Your task to perform on an android device: Search for a 3d printer on aliexpress Image 0: 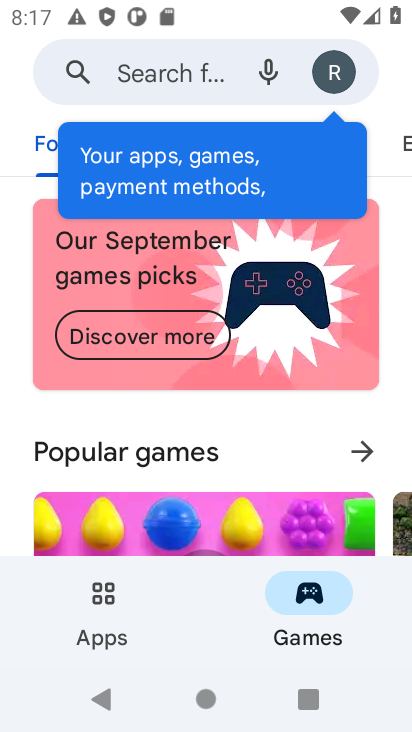
Step 0: press home button
Your task to perform on an android device: Search for a 3d printer on aliexpress Image 1: 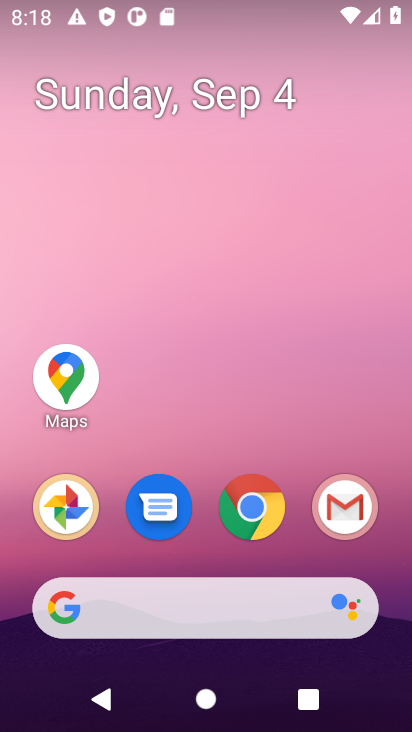
Step 1: click (256, 522)
Your task to perform on an android device: Search for a 3d printer on aliexpress Image 2: 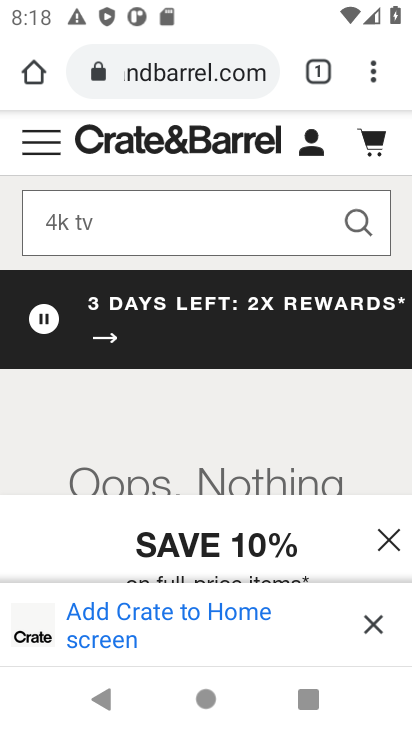
Step 2: click (162, 74)
Your task to perform on an android device: Search for a 3d printer on aliexpress Image 3: 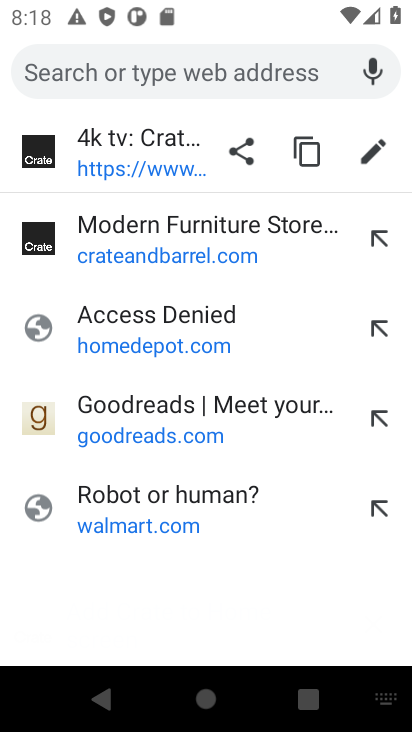
Step 3: type "aliexpress"
Your task to perform on an android device: Search for a 3d printer on aliexpress Image 4: 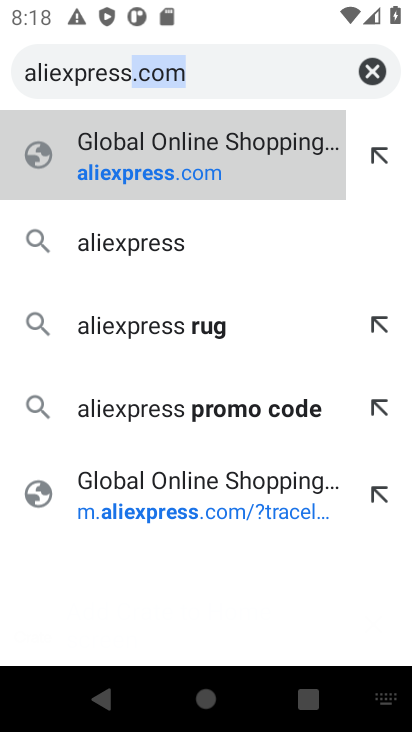
Step 4: click (282, 157)
Your task to perform on an android device: Search for a 3d printer on aliexpress Image 5: 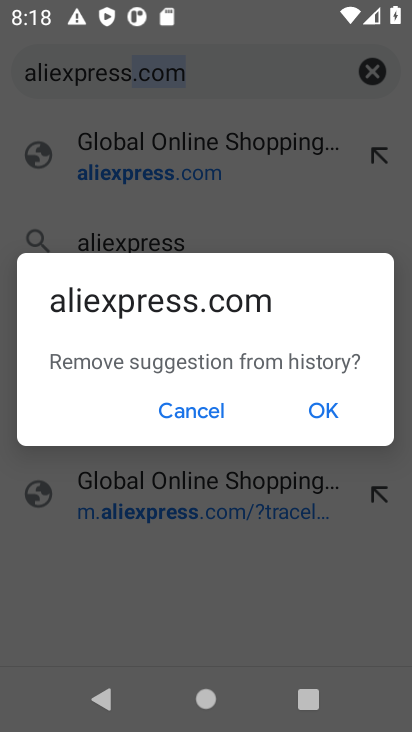
Step 5: click (196, 411)
Your task to perform on an android device: Search for a 3d printer on aliexpress Image 6: 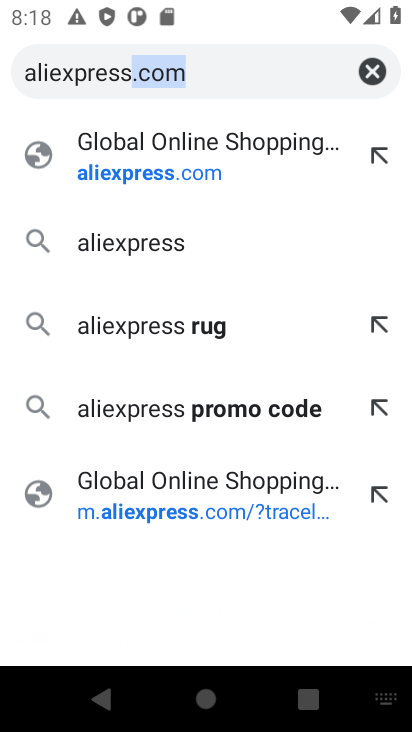
Step 6: click (168, 171)
Your task to perform on an android device: Search for a 3d printer on aliexpress Image 7: 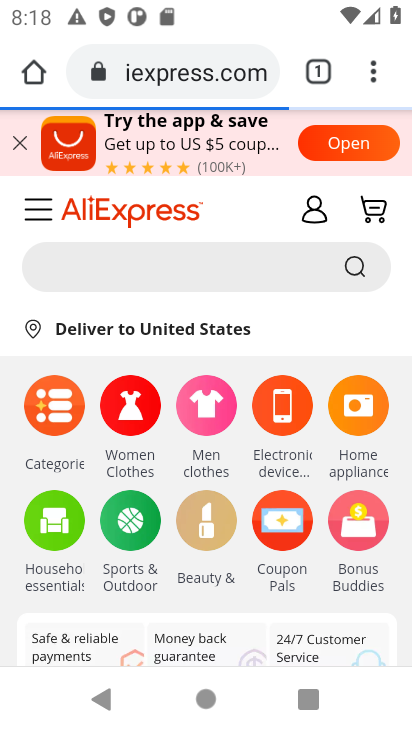
Step 7: click (215, 273)
Your task to perform on an android device: Search for a 3d printer on aliexpress Image 8: 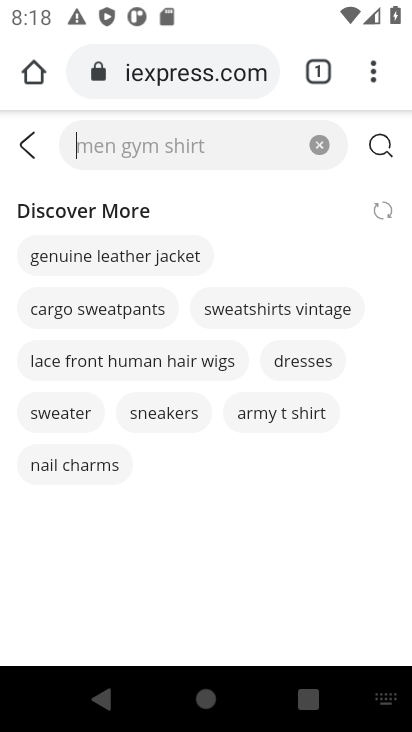
Step 8: type "3d printer"
Your task to perform on an android device: Search for a 3d printer on aliexpress Image 9: 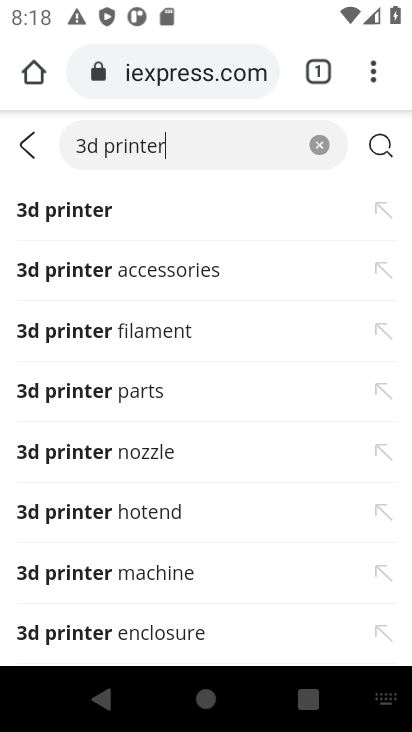
Step 9: click (83, 219)
Your task to perform on an android device: Search for a 3d printer on aliexpress Image 10: 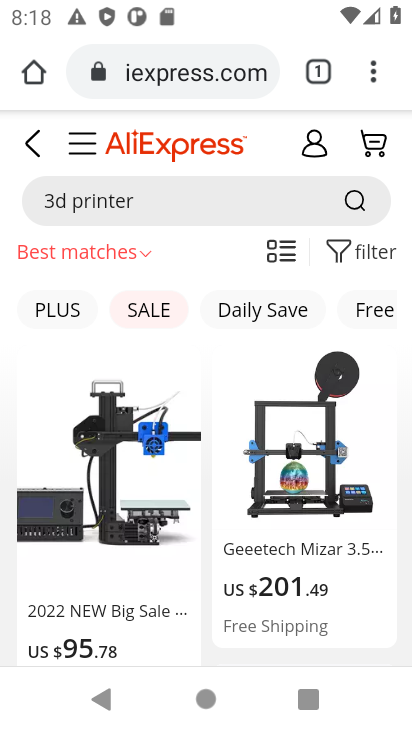
Step 10: task complete